Your task to perform on an android device: toggle location history Image 0: 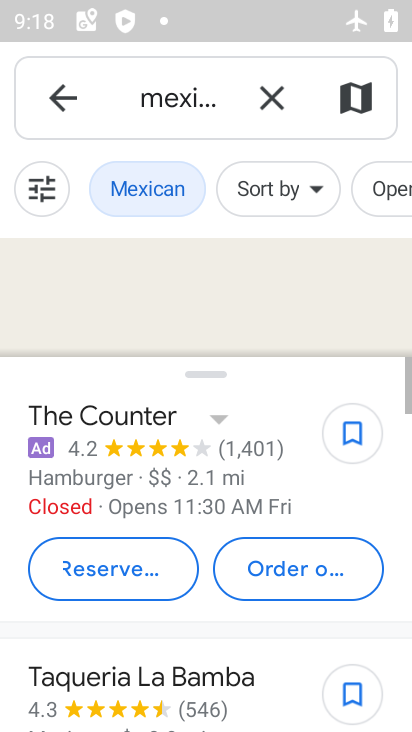
Step 0: press home button
Your task to perform on an android device: toggle location history Image 1: 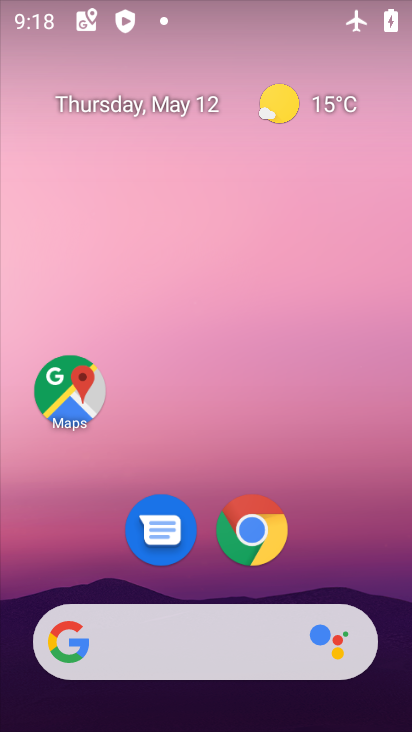
Step 1: drag from (167, 708) to (257, 91)
Your task to perform on an android device: toggle location history Image 2: 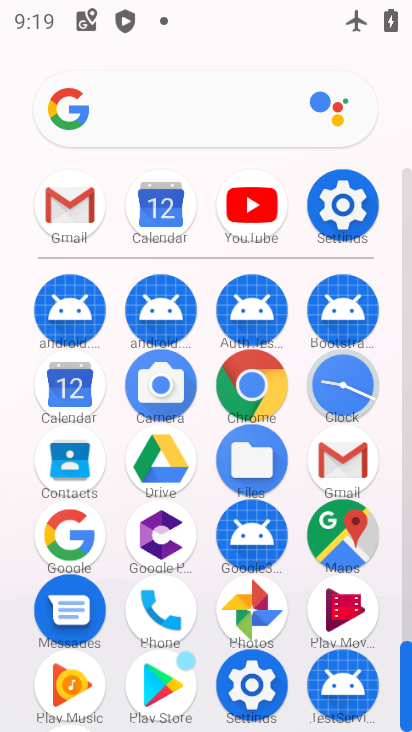
Step 2: click (346, 525)
Your task to perform on an android device: toggle location history Image 3: 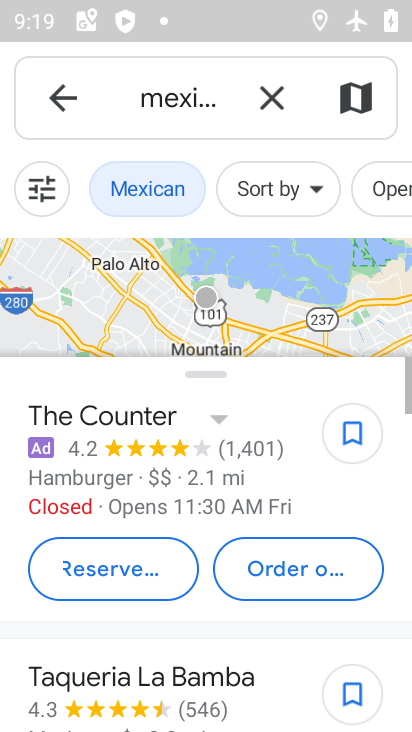
Step 3: click (72, 93)
Your task to perform on an android device: toggle location history Image 4: 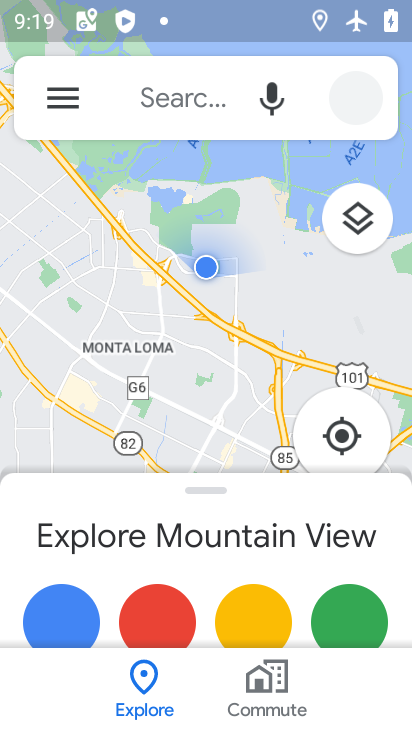
Step 4: click (62, 95)
Your task to perform on an android device: toggle location history Image 5: 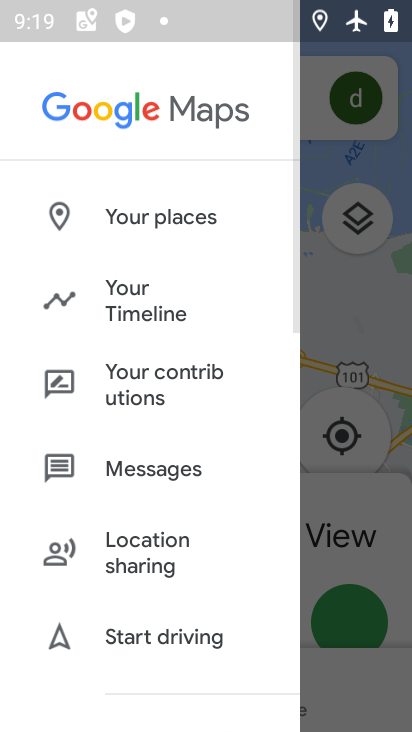
Step 5: click (150, 307)
Your task to perform on an android device: toggle location history Image 6: 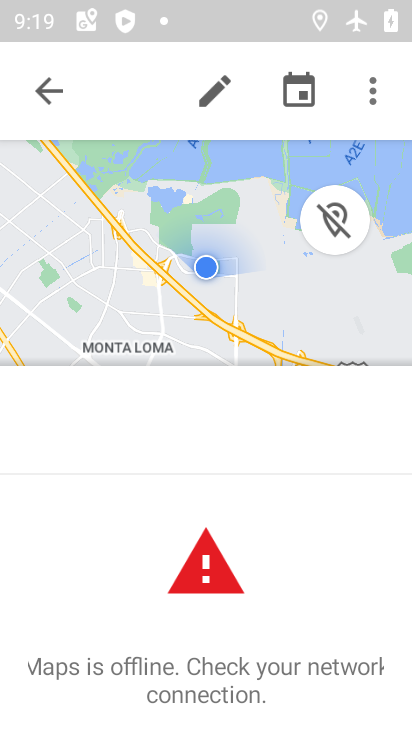
Step 6: click (367, 98)
Your task to perform on an android device: toggle location history Image 7: 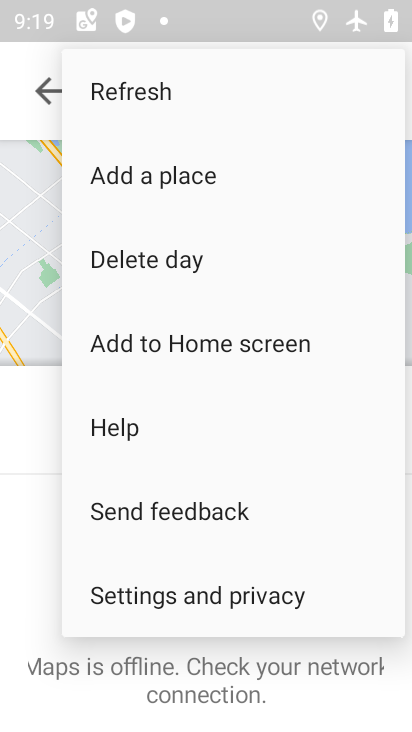
Step 7: click (180, 615)
Your task to perform on an android device: toggle location history Image 8: 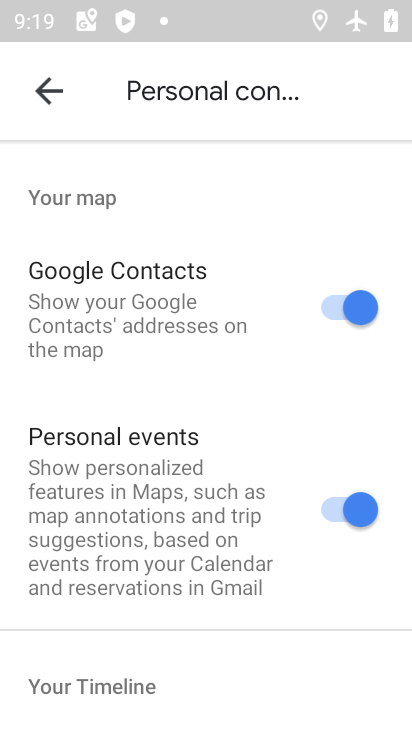
Step 8: drag from (254, 626) to (168, 14)
Your task to perform on an android device: toggle location history Image 9: 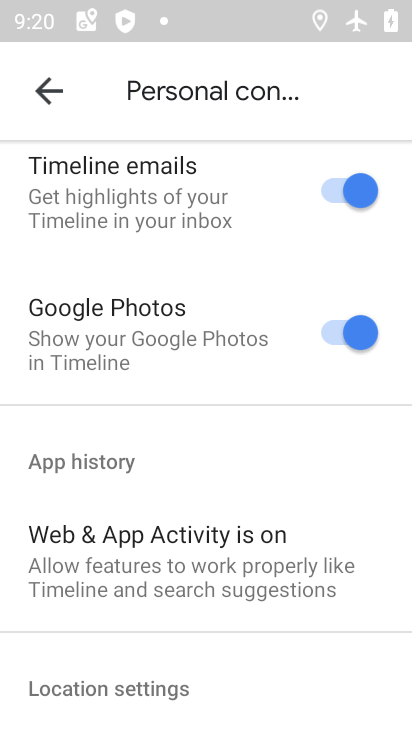
Step 9: drag from (179, 193) to (150, 543)
Your task to perform on an android device: toggle location history Image 10: 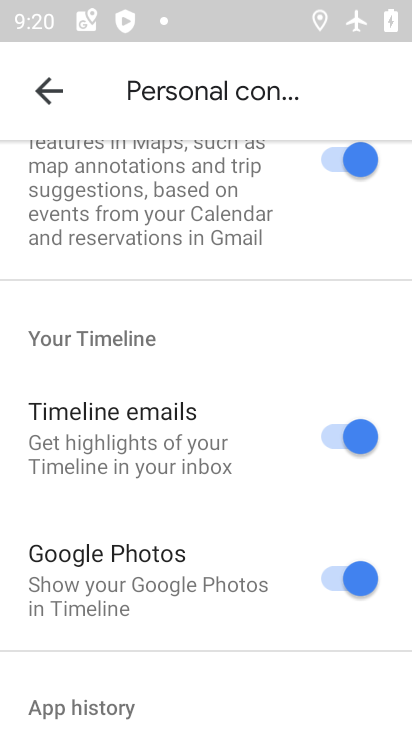
Step 10: drag from (152, 651) to (106, 138)
Your task to perform on an android device: toggle location history Image 11: 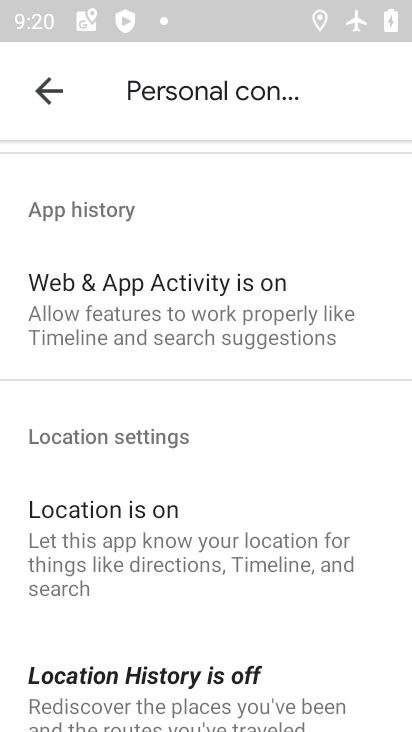
Step 11: drag from (231, 650) to (191, 279)
Your task to perform on an android device: toggle location history Image 12: 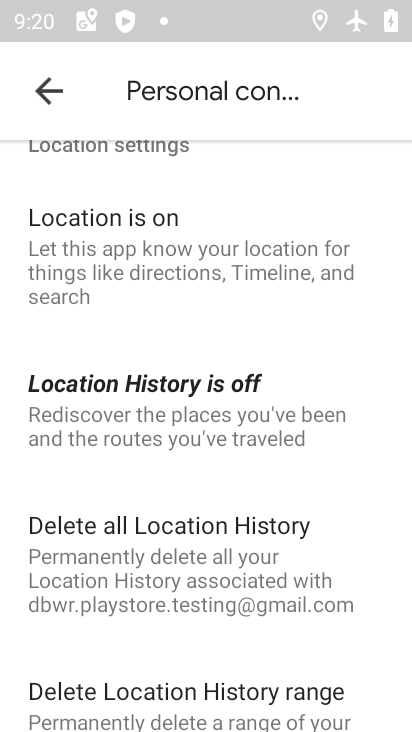
Step 12: click (223, 429)
Your task to perform on an android device: toggle location history Image 13: 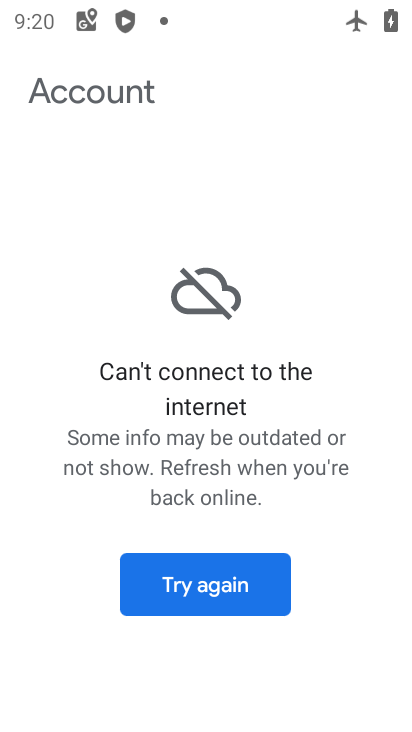
Step 13: task complete